Your task to perform on an android device: open app "Duolingo: language lessons" Image 0: 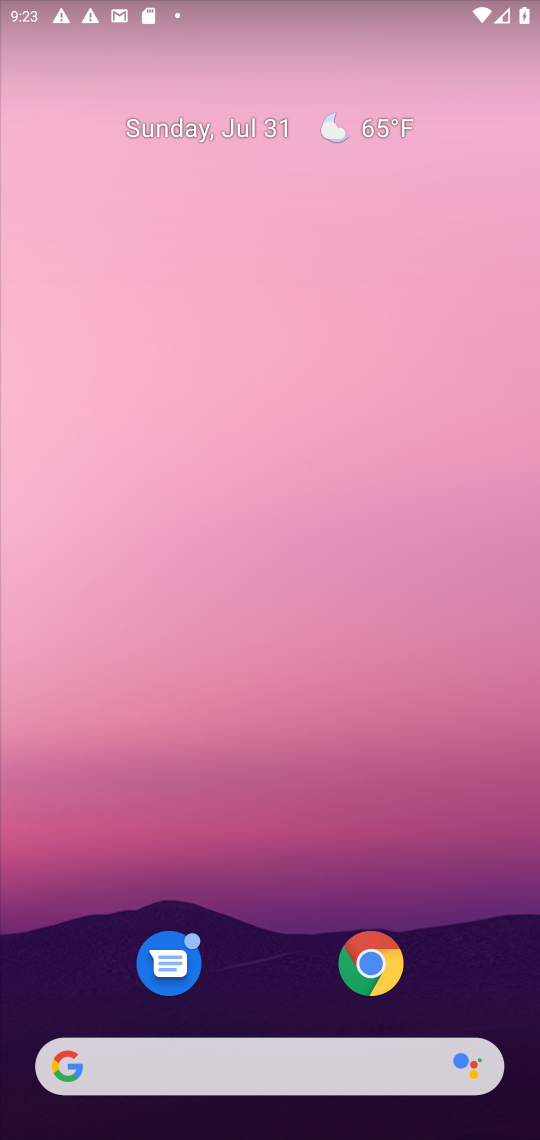
Step 0: drag from (243, 995) to (201, 0)
Your task to perform on an android device: open app "Duolingo: language lessons" Image 1: 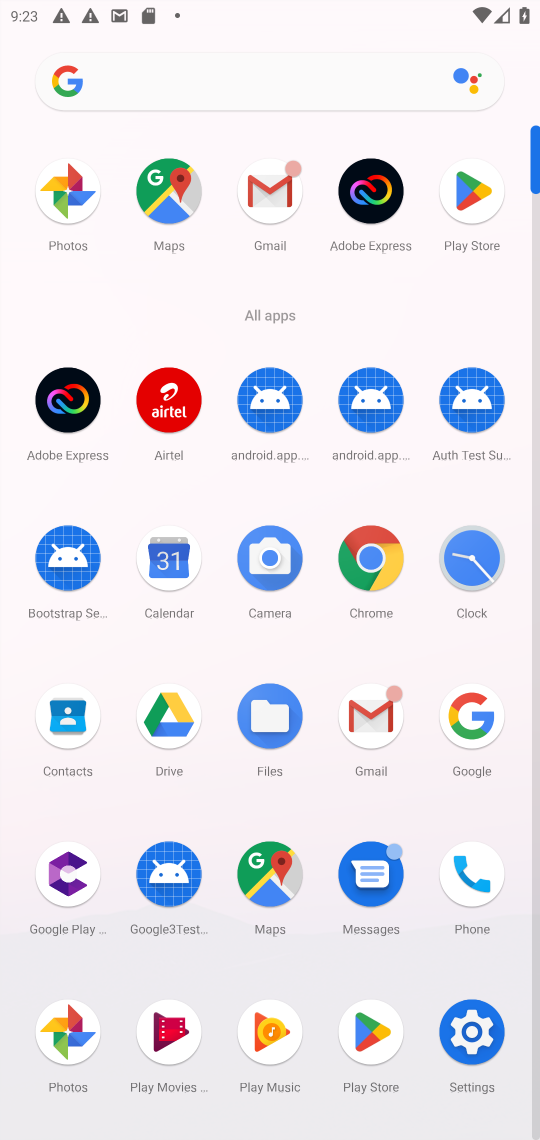
Step 1: click (473, 195)
Your task to perform on an android device: open app "Duolingo: language lessons" Image 2: 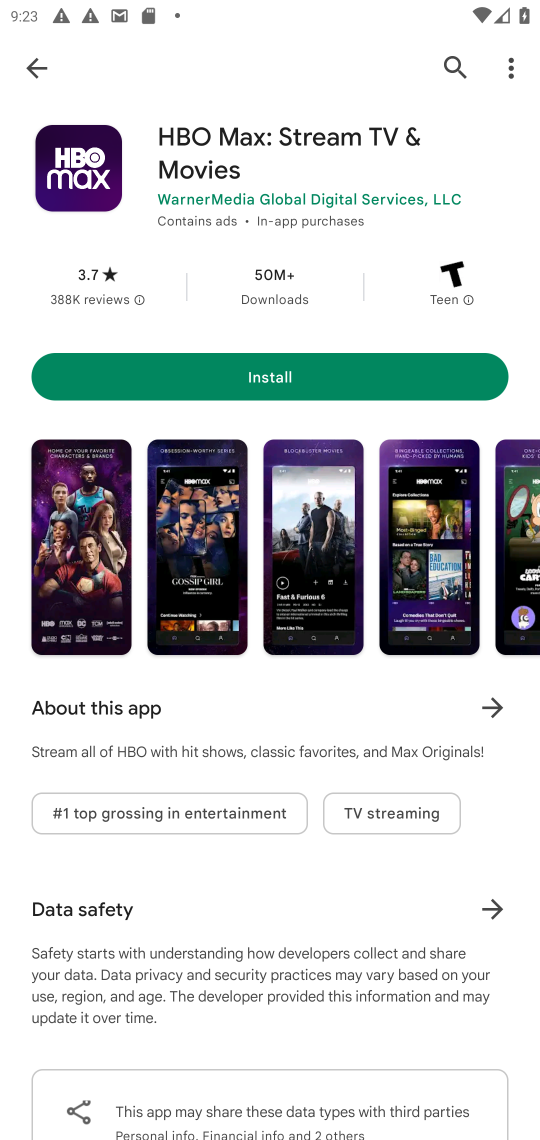
Step 2: click (453, 61)
Your task to perform on an android device: open app "Duolingo: language lessons" Image 3: 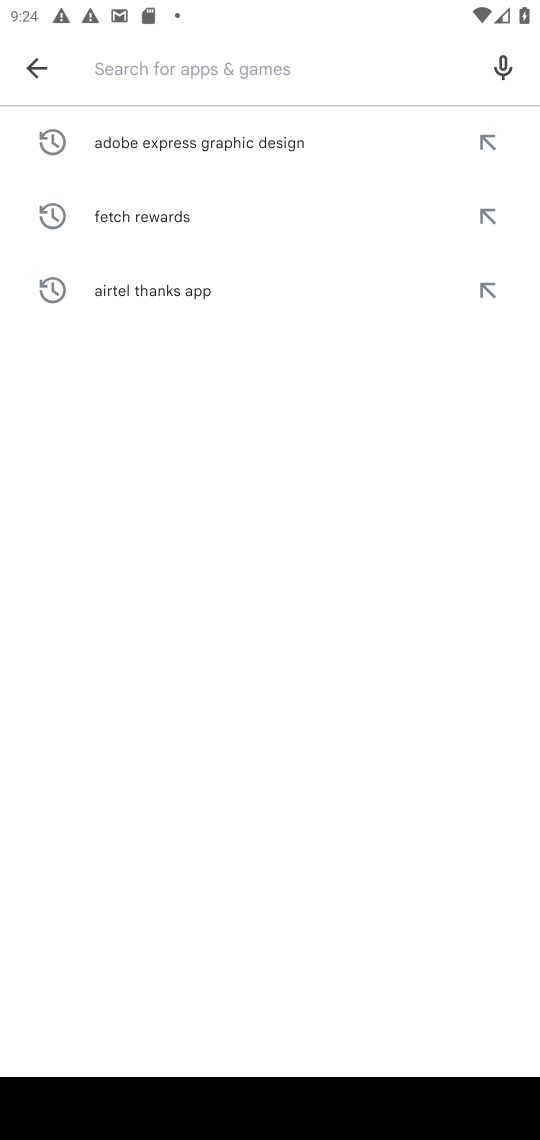
Step 3: type "duolingo: language lessons"
Your task to perform on an android device: open app "Duolingo: language lessons" Image 4: 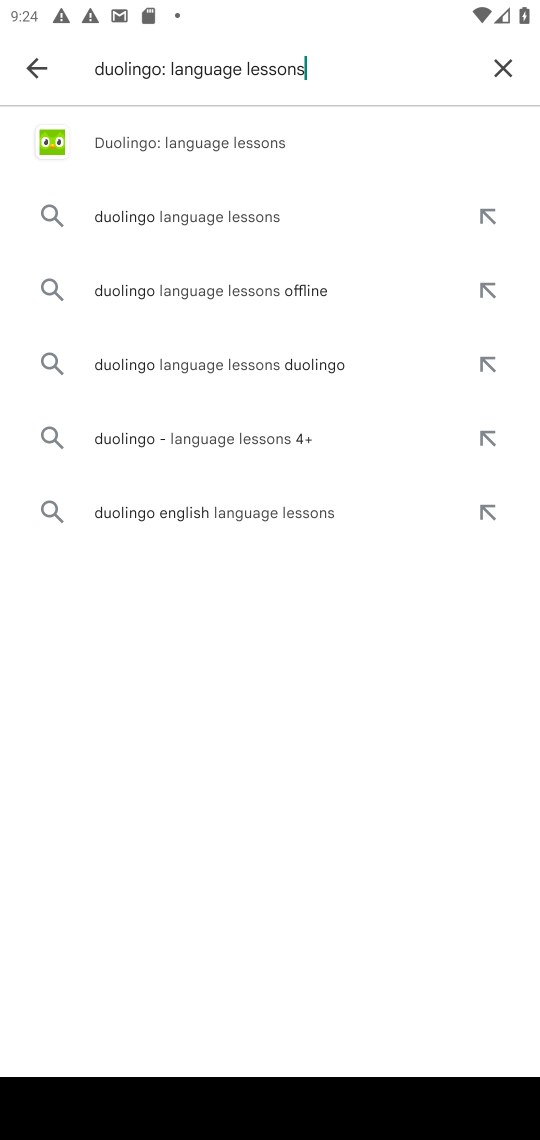
Step 4: click (346, 126)
Your task to perform on an android device: open app "Duolingo: language lessons" Image 5: 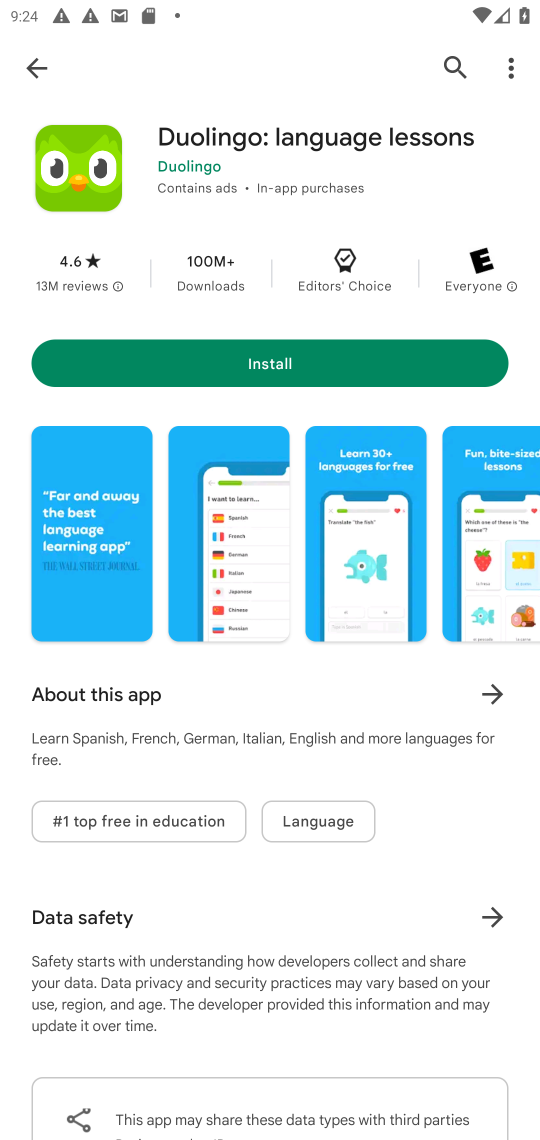
Step 5: task complete